Your task to perform on an android device: What is the recent news? Image 0: 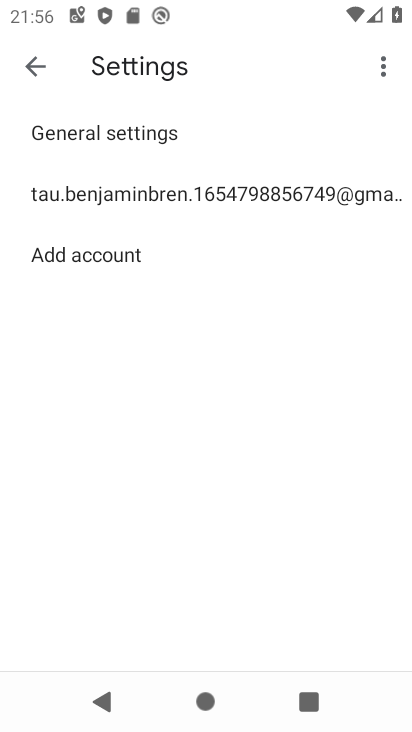
Step 0: press home button
Your task to perform on an android device: What is the recent news? Image 1: 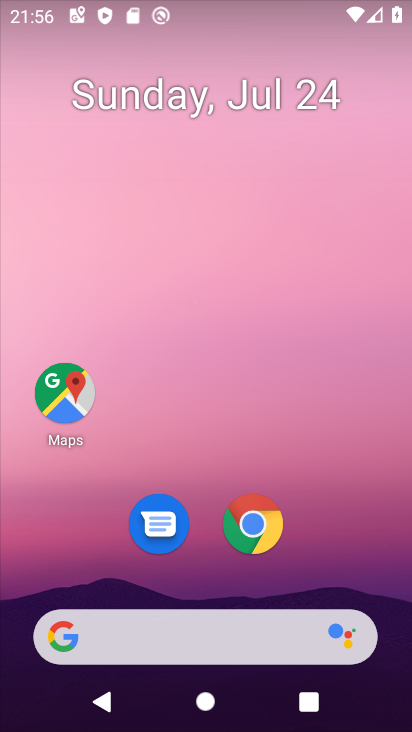
Step 1: click (199, 643)
Your task to perform on an android device: What is the recent news? Image 2: 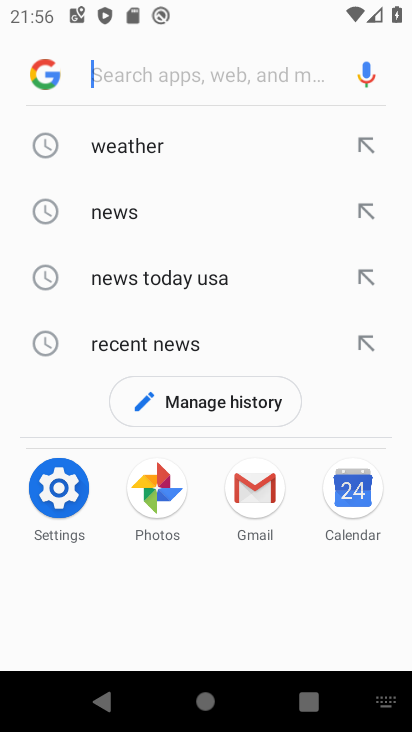
Step 2: click (147, 348)
Your task to perform on an android device: What is the recent news? Image 3: 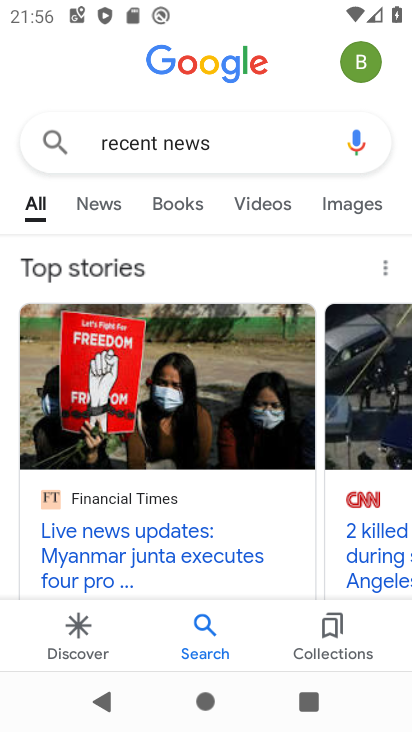
Step 3: click (92, 209)
Your task to perform on an android device: What is the recent news? Image 4: 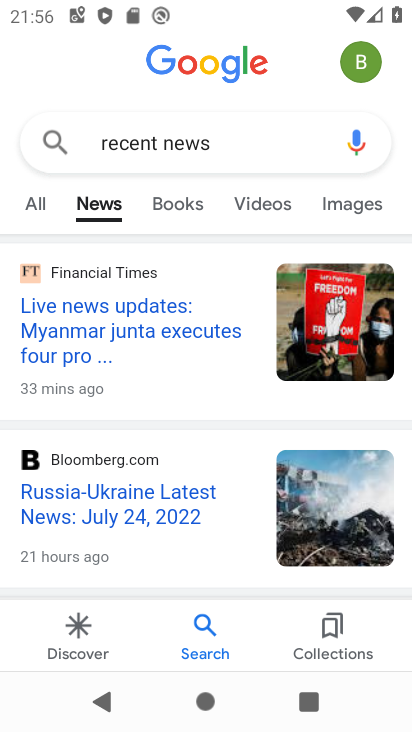
Step 4: task complete